Your task to perform on an android device: What's on the menu at Papa John's? Image 0: 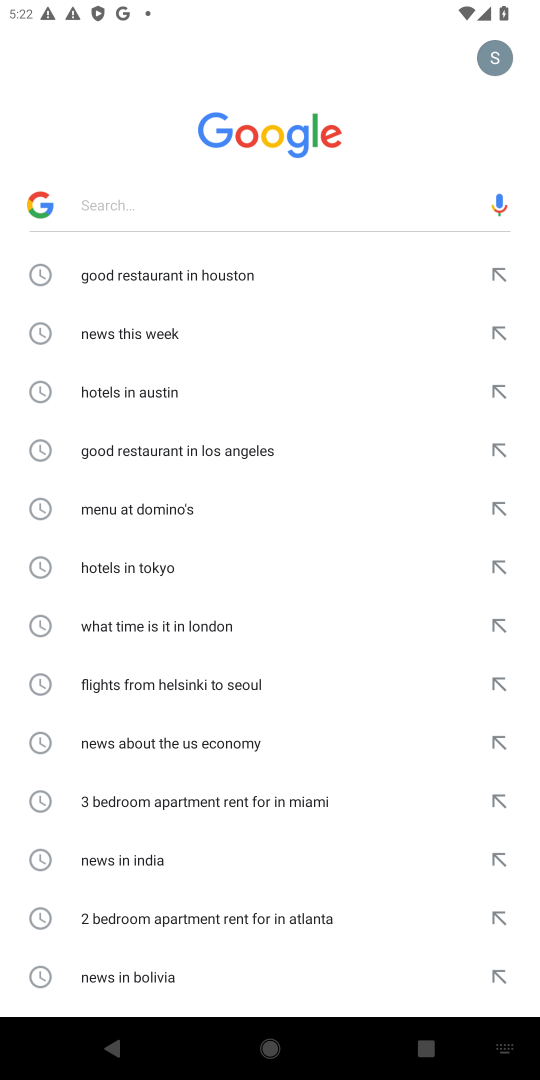
Step 0: press home button
Your task to perform on an android device: What's on the menu at Papa John's? Image 1: 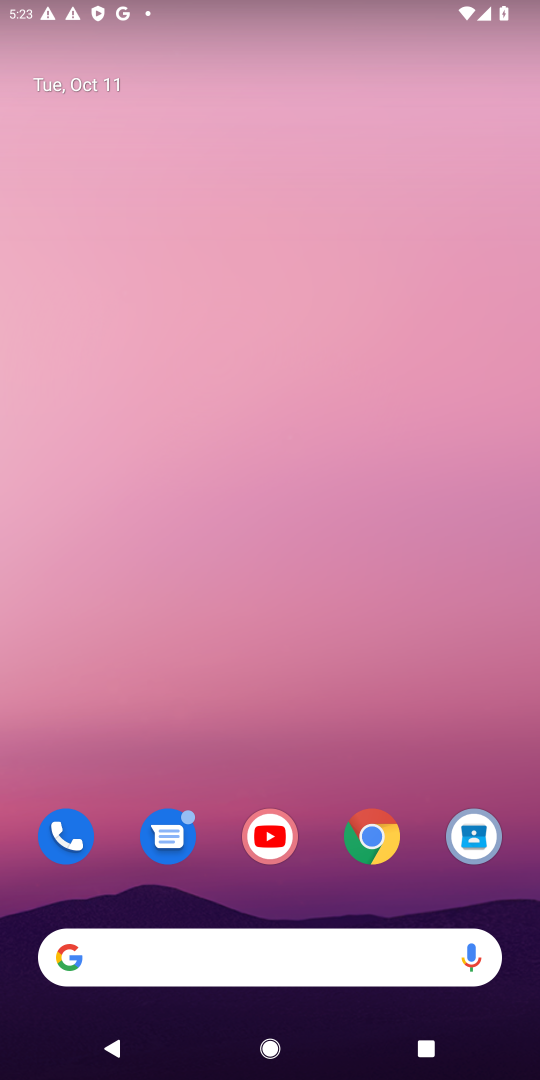
Step 1: click (375, 841)
Your task to perform on an android device: What's on the menu at Papa John's? Image 2: 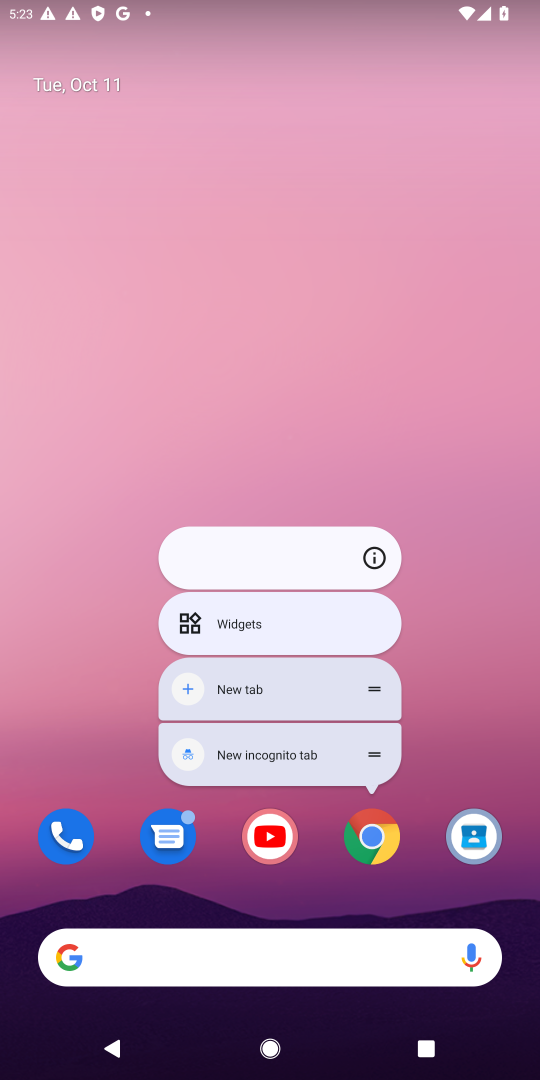
Step 2: click (375, 841)
Your task to perform on an android device: What's on the menu at Papa John's? Image 3: 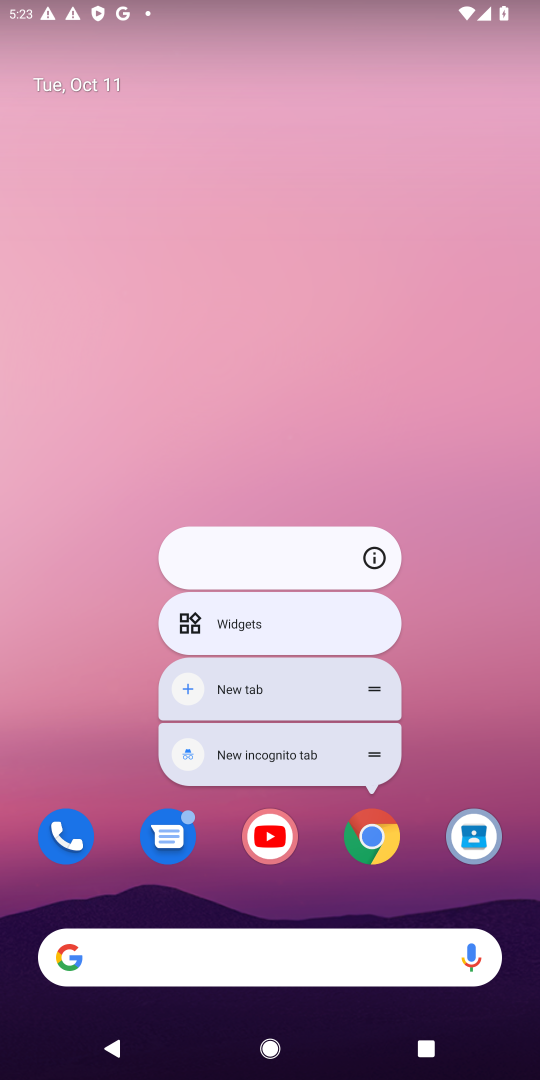
Step 3: click (375, 844)
Your task to perform on an android device: What's on the menu at Papa John's? Image 4: 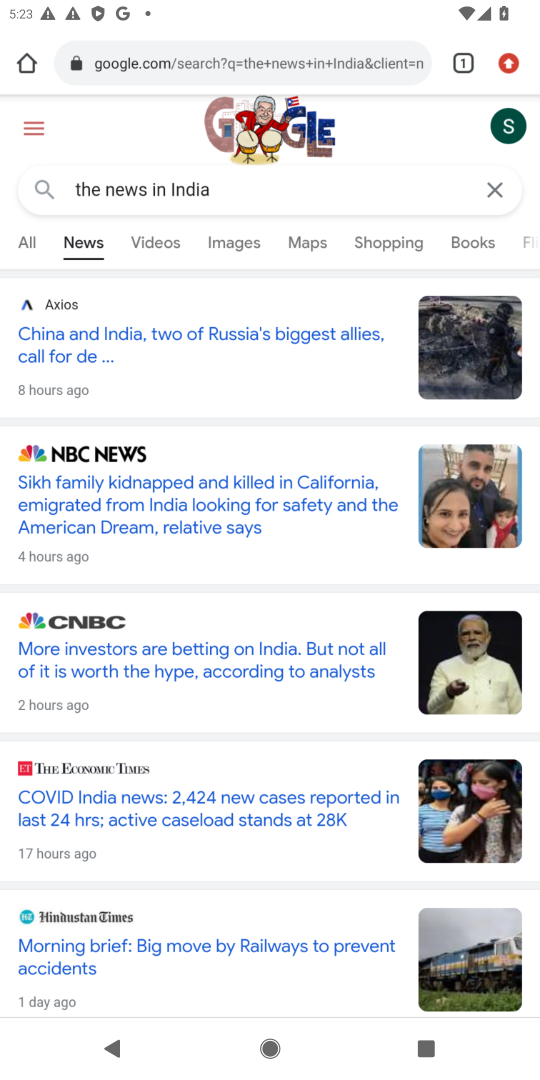
Step 4: click (375, 845)
Your task to perform on an android device: What's on the menu at Papa John's? Image 5: 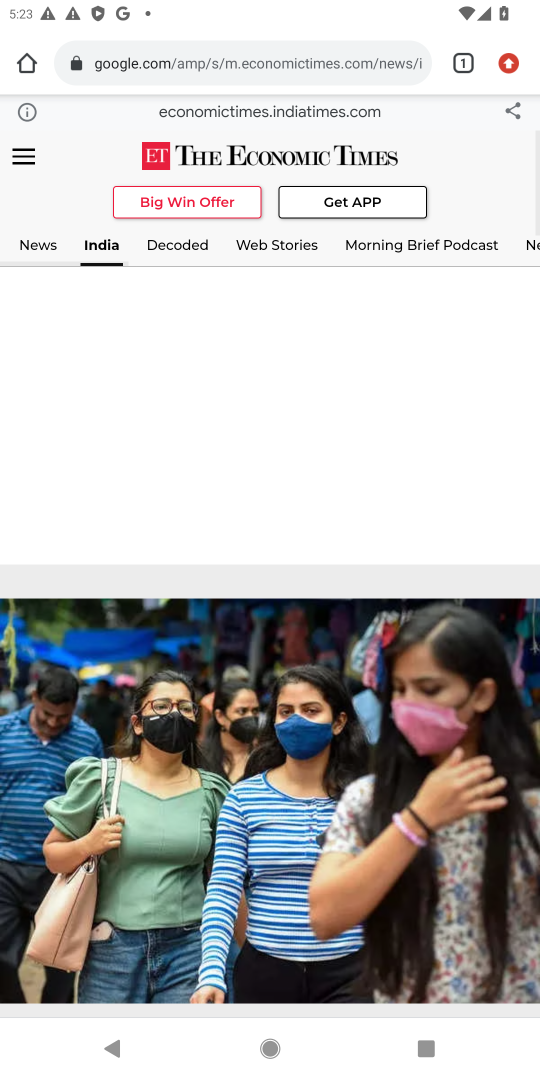
Step 5: click (369, 60)
Your task to perform on an android device: What's on the menu at Papa John's? Image 6: 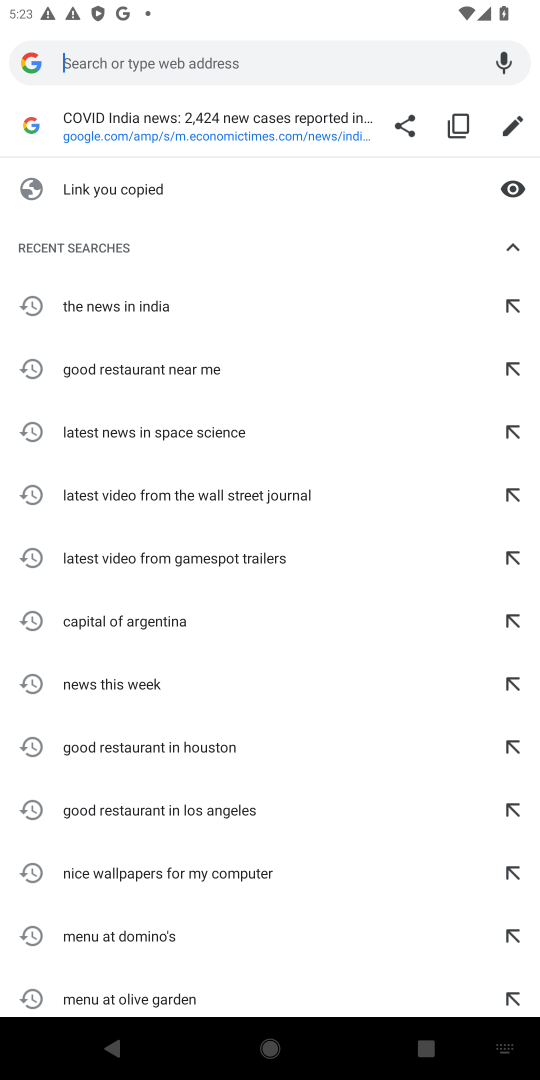
Step 6: type "menu at Papa John's"
Your task to perform on an android device: What's on the menu at Papa John's? Image 7: 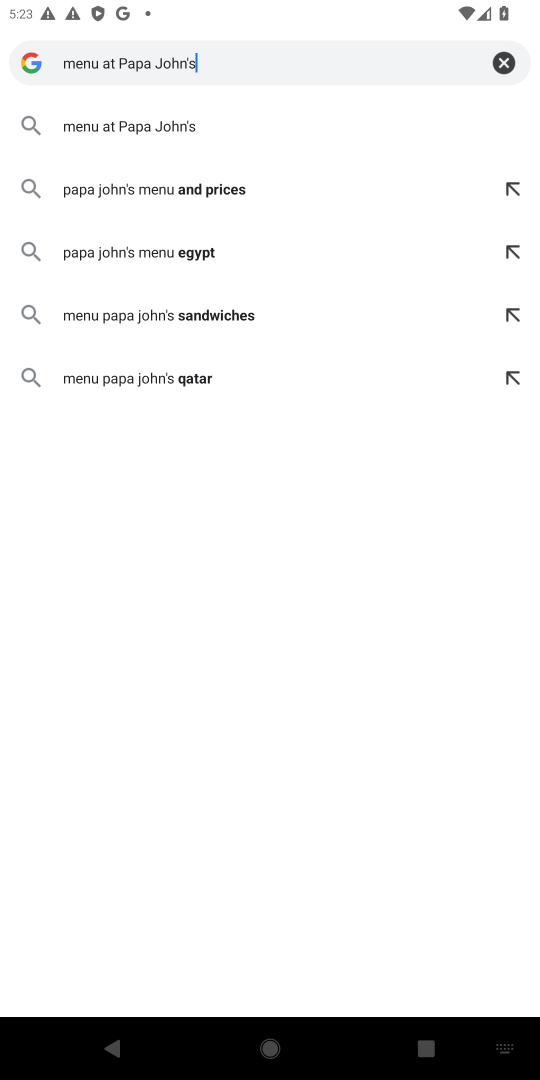
Step 7: click (156, 120)
Your task to perform on an android device: What's on the menu at Papa John's? Image 8: 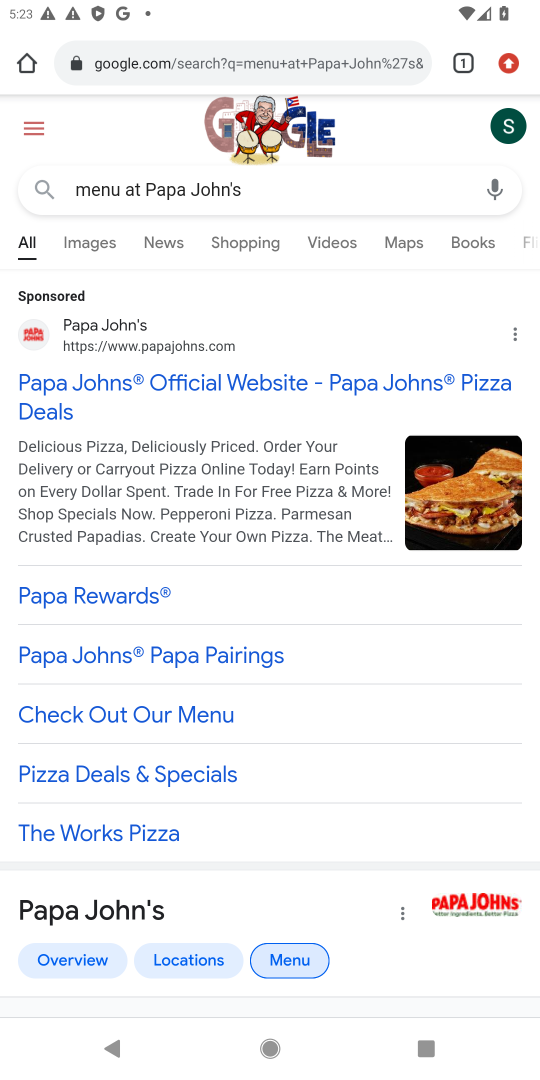
Step 8: drag from (308, 904) to (451, 234)
Your task to perform on an android device: What's on the menu at Papa John's? Image 9: 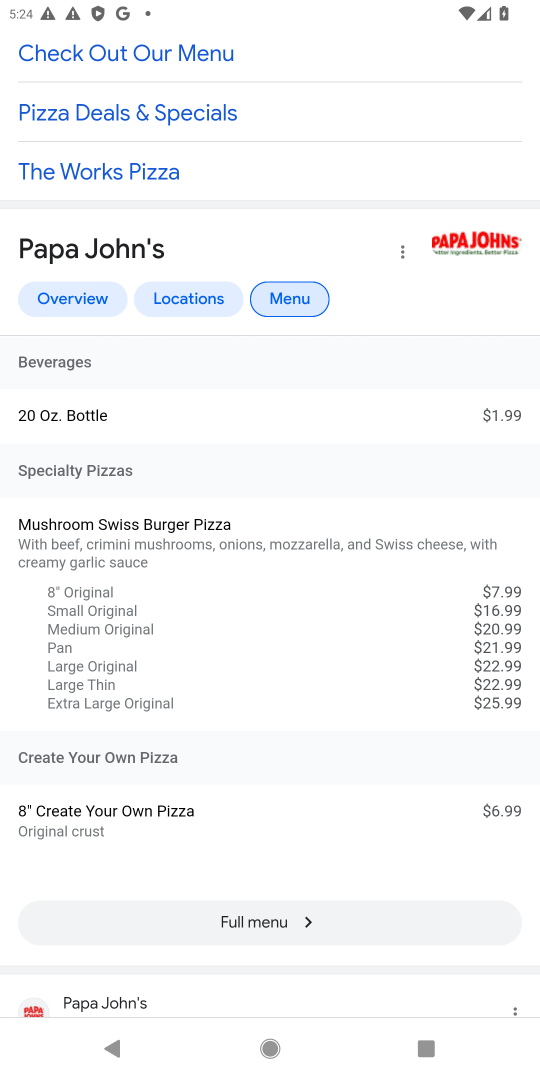
Step 9: click (300, 917)
Your task to perform on an android device: What's on the menu at Papa John's? Image 10: 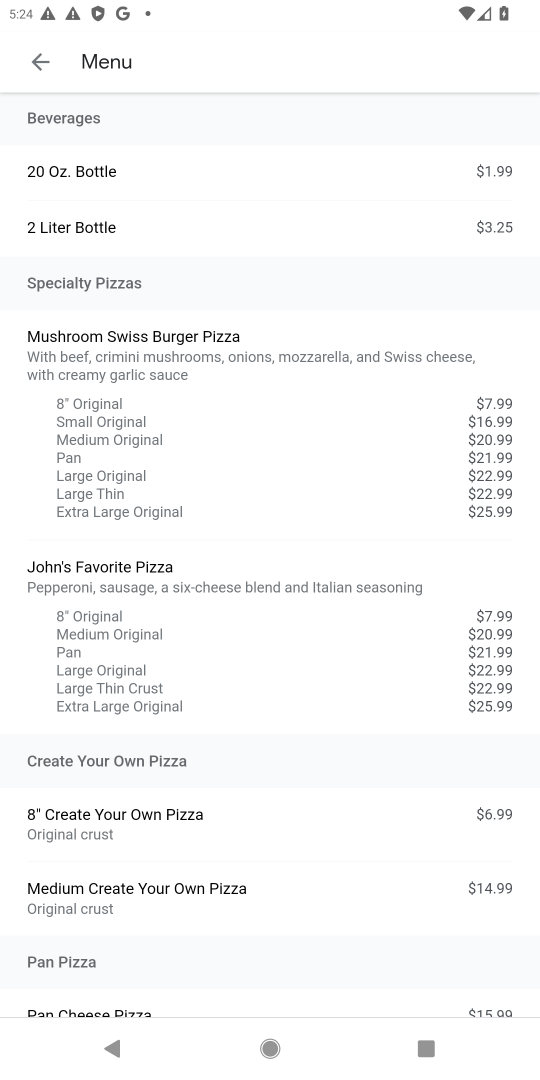
Step 10: task complete